Your task to perform on an android device: Open settings on Google Maps Image 0: 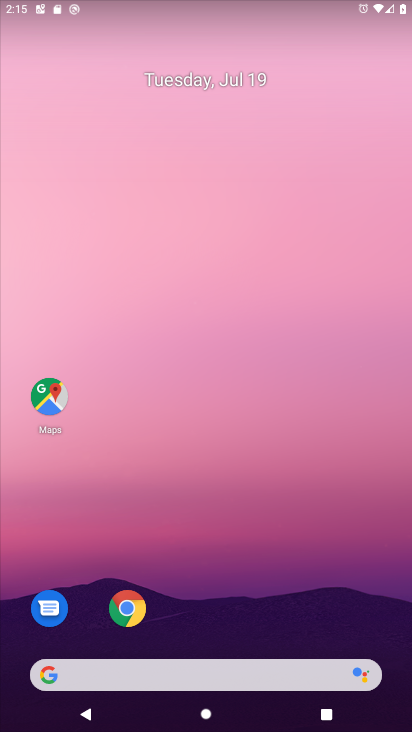
Step 0: drag from (278, 617) to (265, 227)
Your task to perform on an android device: Open settings on Google Maps Image 1: 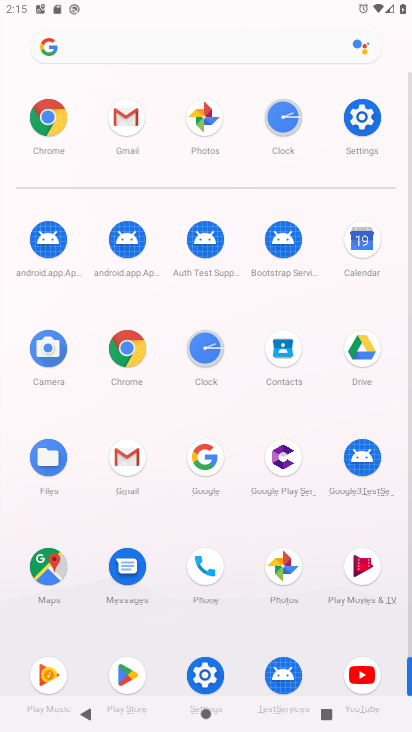
Step 1: click (58, 572)
Your task to perform on an android device: Open settings on Google Maps Image 2: 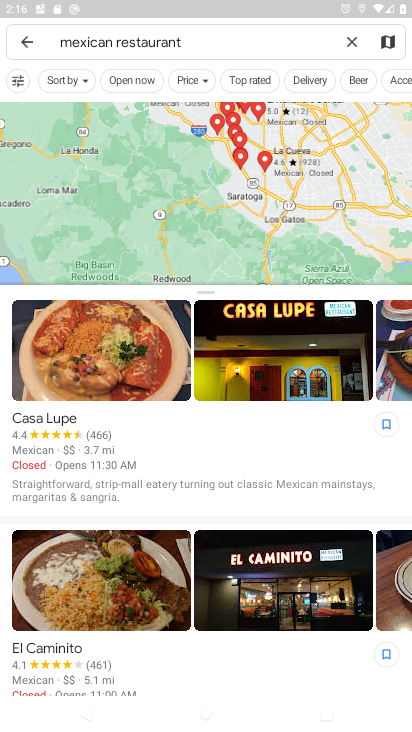
Step 2: press back button
Your task to perform on an android device: Open settings on Google Maps Image 3: 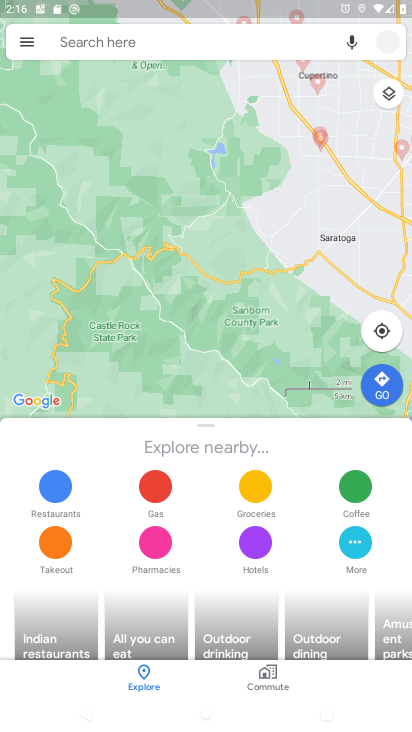
Step 3: click (34, 45)
Your task to perform on an android device: Open settings on Google Maps Image 4: 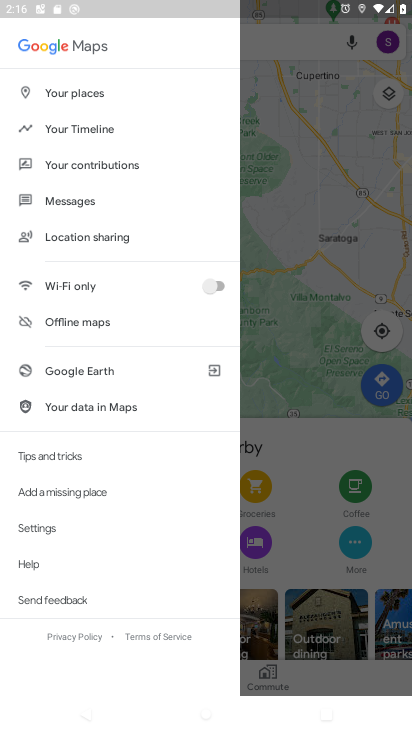
Step 4: click (44, 534)
Your task to perform on an android device: Open settings on Google Maps Image 5: 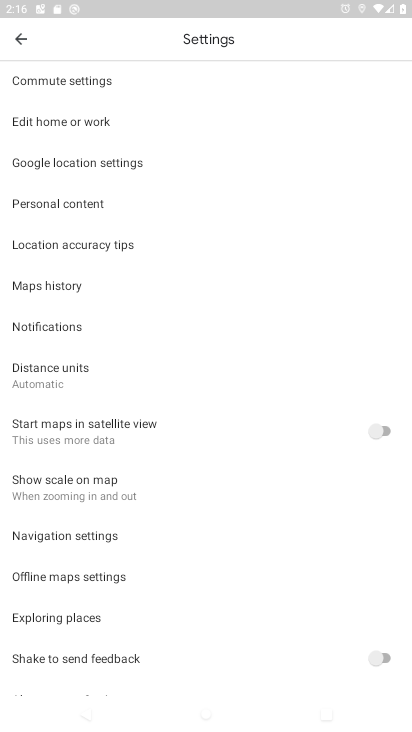
Step 5: task complete